Your task to perform on an android device: Open Youtube and go to the subscriptions tab Image 0: 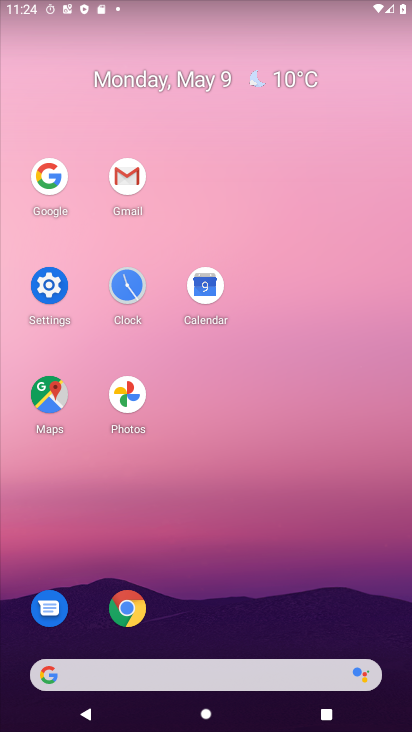
Step 0: drag from (240, 630) to (236, 180)
Your task to perform on an android device: Open Youtube and go to the subscriptions tab Image 1: 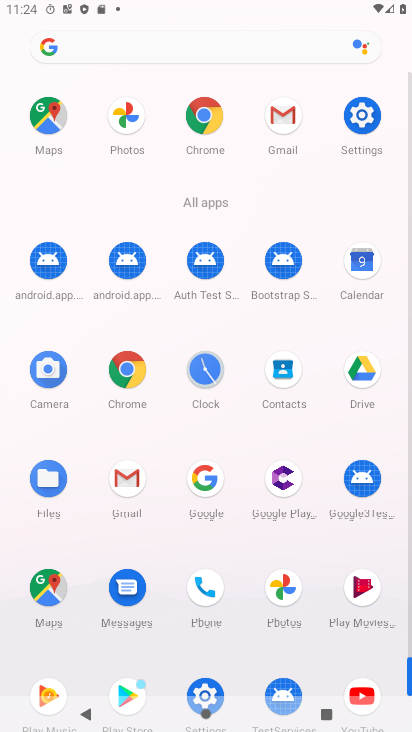
Step 1: drag from (362, 684) to (209, 423)
Your task to perform on an android device: Open Youtube and go to the subscriptions tab Image 2: 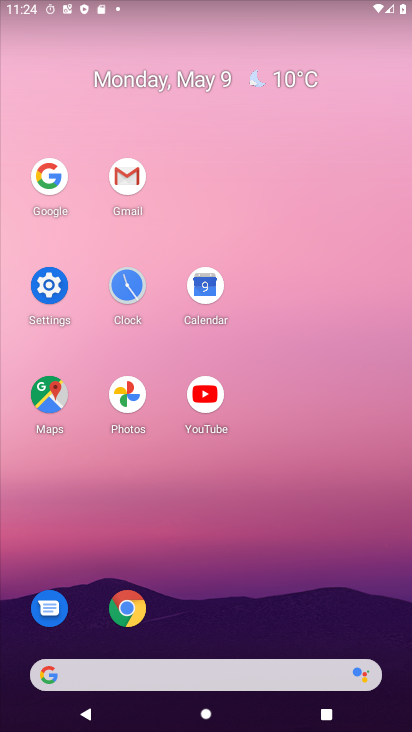
Step 2: click (206, 395)
Your task to perform on an android device: Open Youtube and go to the subscriptions tab Image 3: 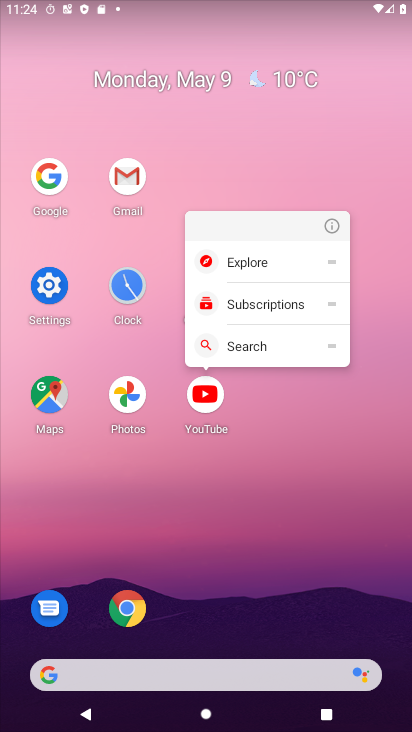
Step 3: click (206, 395)
Your task to perform on an android device: Open Youtube and go to the subscriptions tab Image 4: 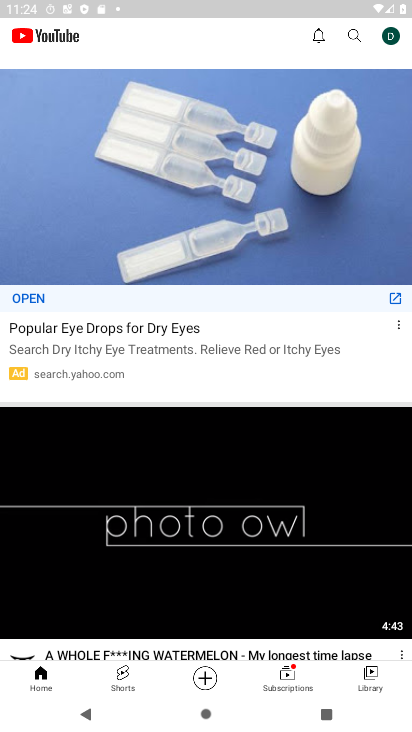
Step 4: click (278, 670)
Your task to perform on an android device: Open Youtube and go to the subscriptions tab Image 5: 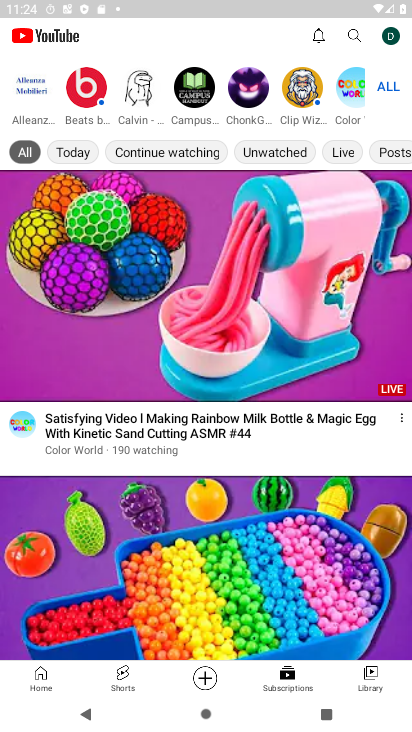
Step 5: task complete